Your task to perform on an android device: add a contact in the contacts app Image 0: 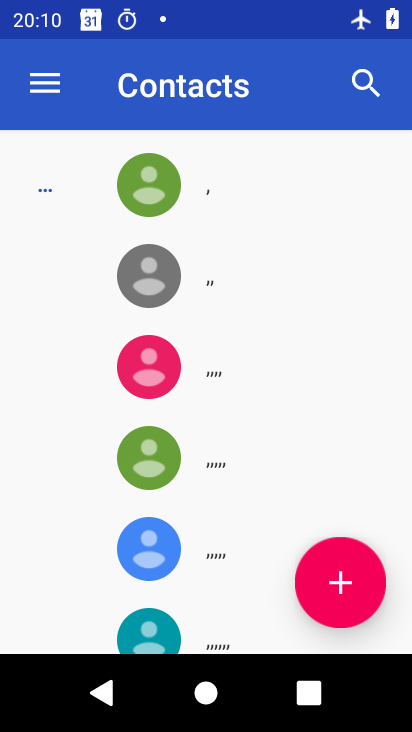
Step 0: press home button
Your task to perform on an android device: add a contact in the contacts app Image 1: 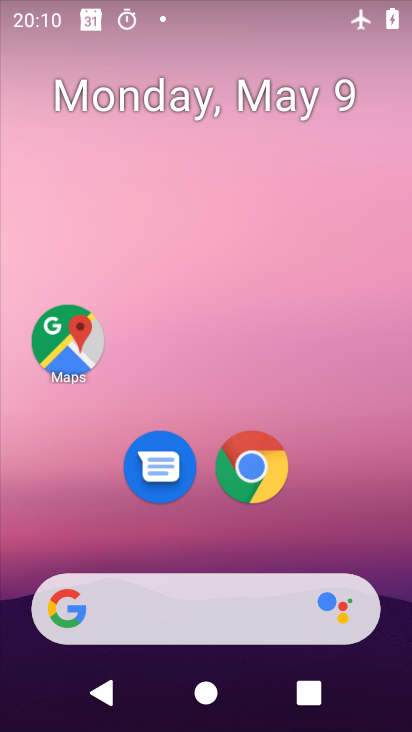
Step 1: drag from (345, 489) to (245, 63)
Your task to perform on an android device: add a contact in the contacts app Image 2: 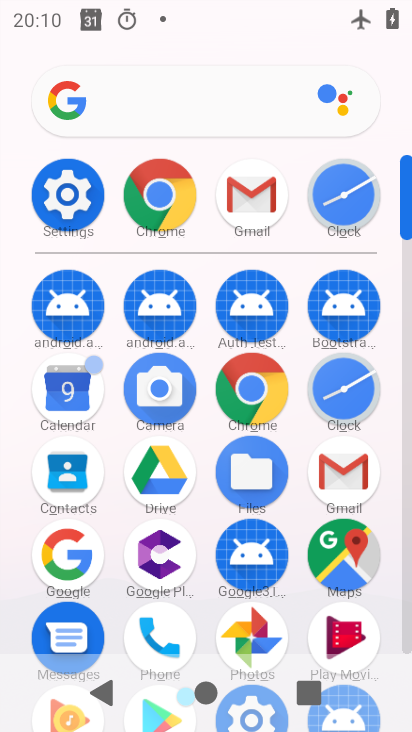
Step 2: drag from (291, 658) to (289, 431)
Your task to perform on an android device: add a contact in the contacts app Image 3: 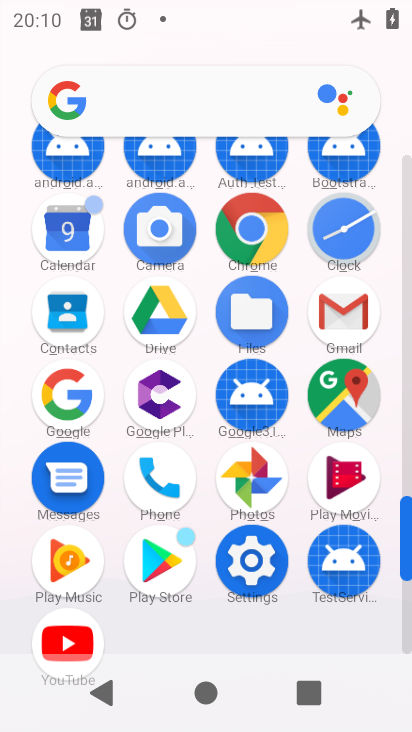
Step 3: click (78, 322)
Your task to perform on an android device: add a contact in the contacts app Image 4: 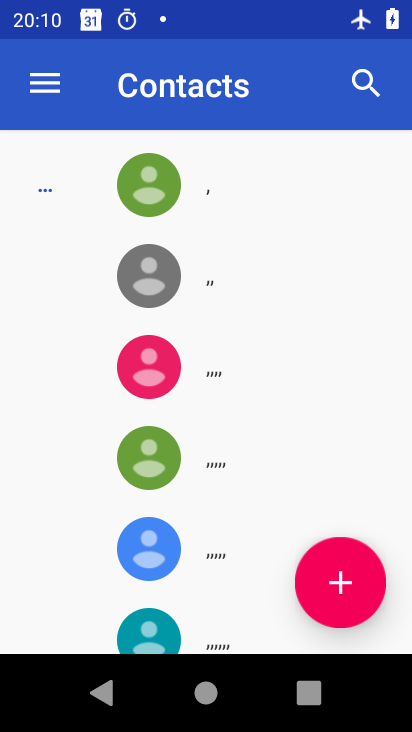
Step 4: click (319, 574)
Your task to perform on an android device: add a contact in the contacts app Image 5: 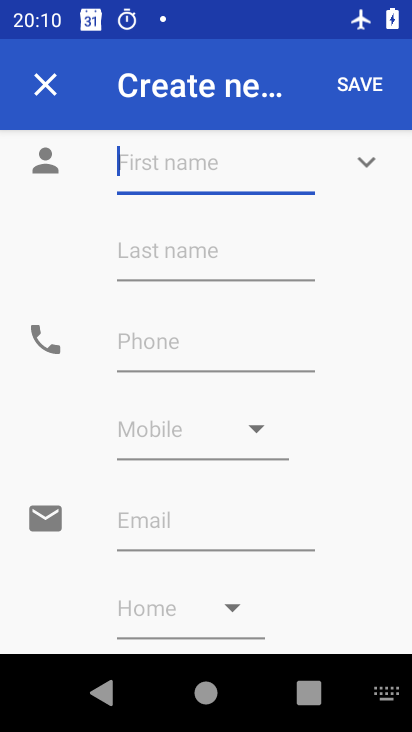
Step 5: type "kkmmkk"
Your task to perform on an android device: add a contact in the contacts app Image 6: 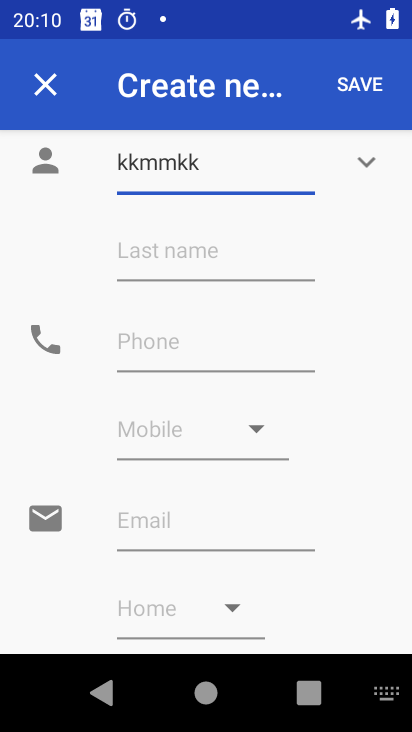
Step 6: click (384, 84)
Your task to perform on an android device: add a contact in the contacts app Image 7: 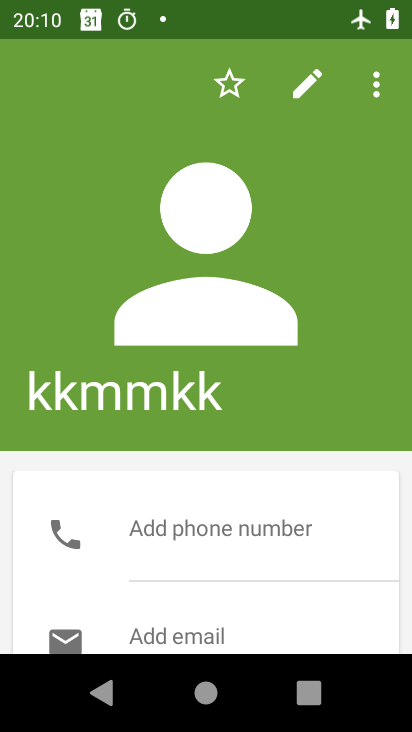
Step 7: task complete